Your task to perform on an android device: open chrome and create a bookmark for the current page Image 0: 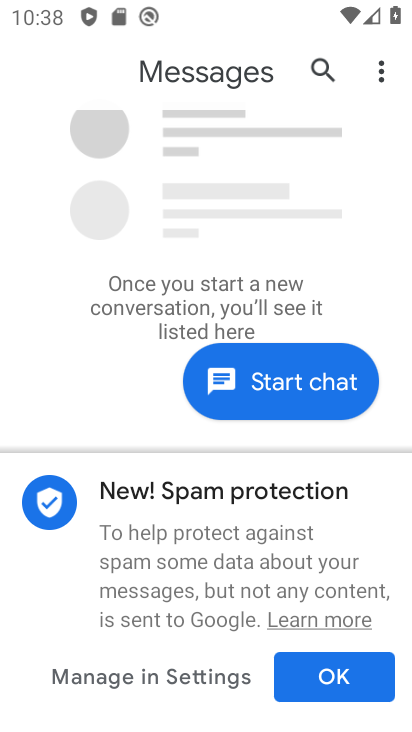
Step 0: press home button
Your task to perform on an android device: open chrome and create a bookmark for the current page Image 1: 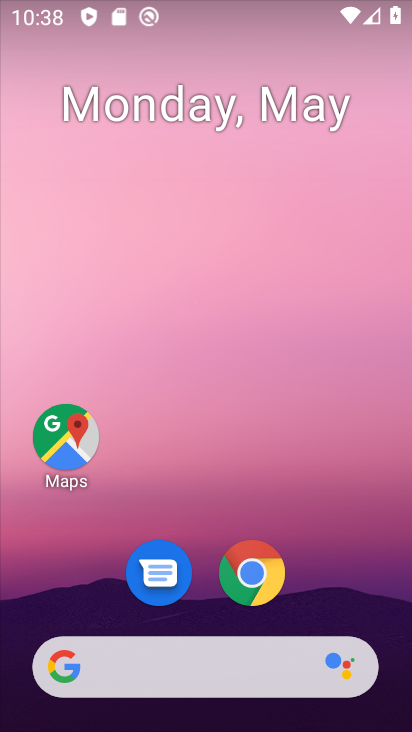
Step 1: click (251, 567)
Your task to perform on an android device: open chrome and create a bookmark for the current page Image 2: 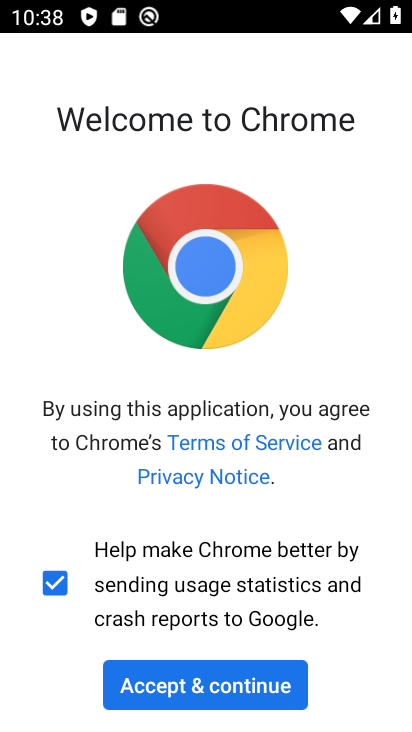
Step 2: click (200, 685)
Your task to perform on an android device: open chrome and create a bookmark for the current page Image 3: 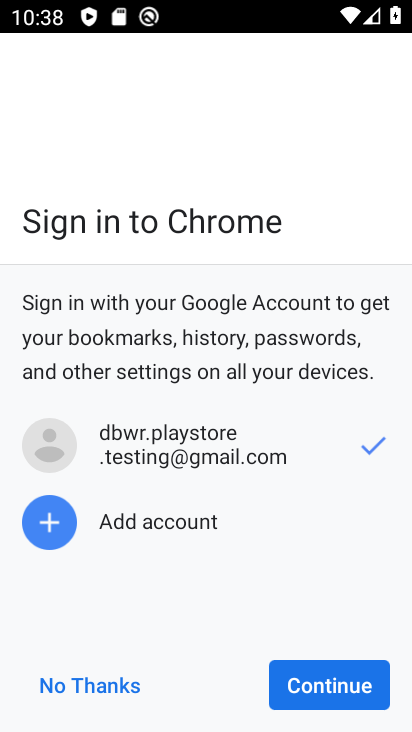
Step 3: click (319, 679)
Your task to perform on an android device: open chrome and create a bookmark for the current page Image 4: 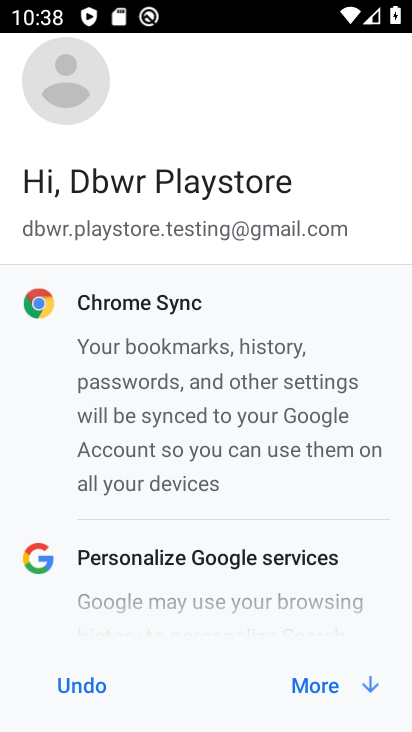
Step 4: click (341, 681)
Your task to perform on an android device: open chrome and create a bookmark for the current page Image 5: 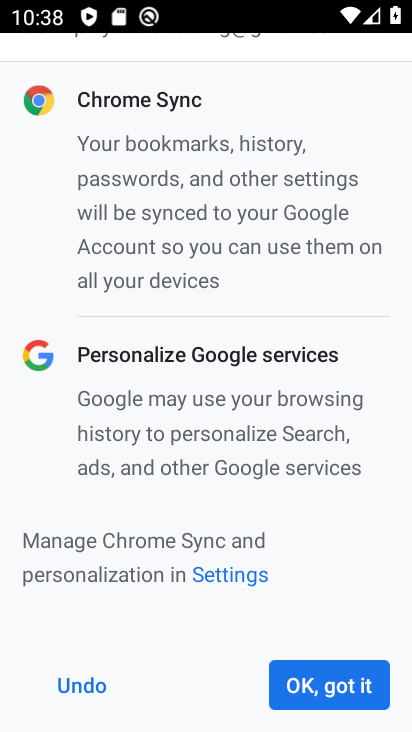
Step 5: click (301, 676)
Your task to perform on an android device: open chrome and create a bookmark for the current page Image 6: 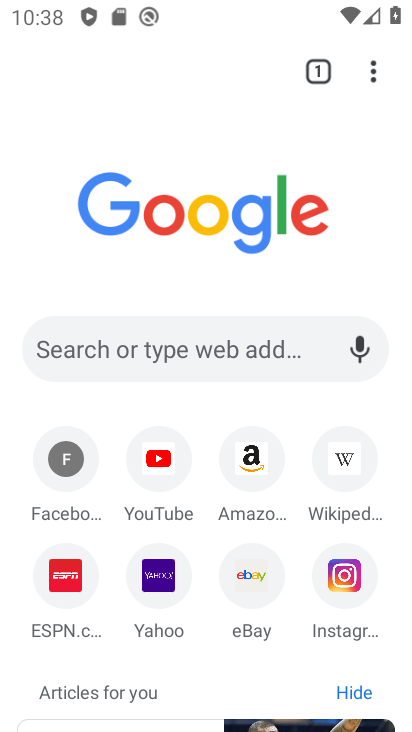
Step 6: click (372, 71)
Your task to perform on an android device: open chrome and create a bookmark for the current page Image 7: 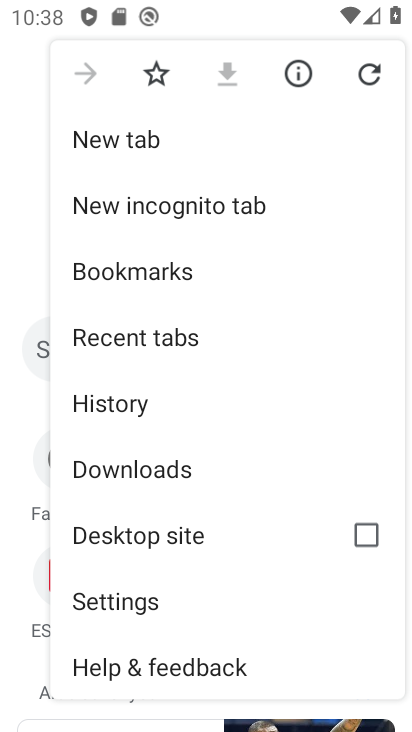
Step 7: drag from (192, 595) to (190, 267)
Your task to perform on an android device: open chrome and create a bookmark for the current page Image 8: 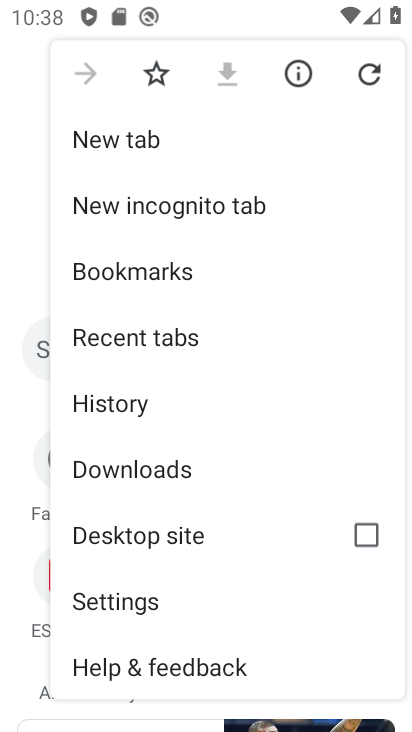
Step 8: click (167, 73)
Your task to perform on an android device: open chrome and create a bookmark for the current page Image 9: 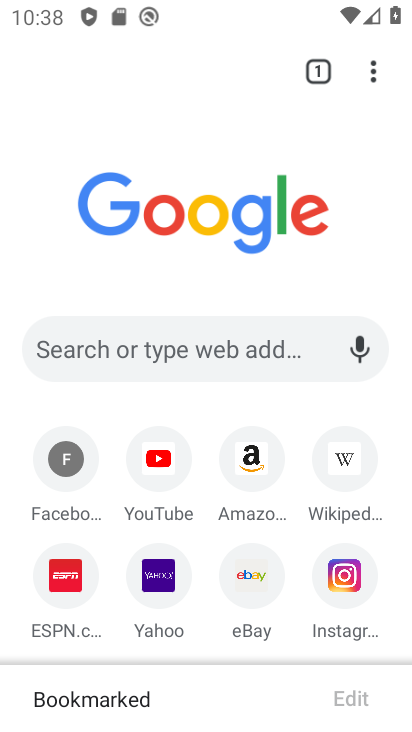
Step 9: task complete